Your task to perform on an android device: turn on the 24-hour format for clock Image 0: 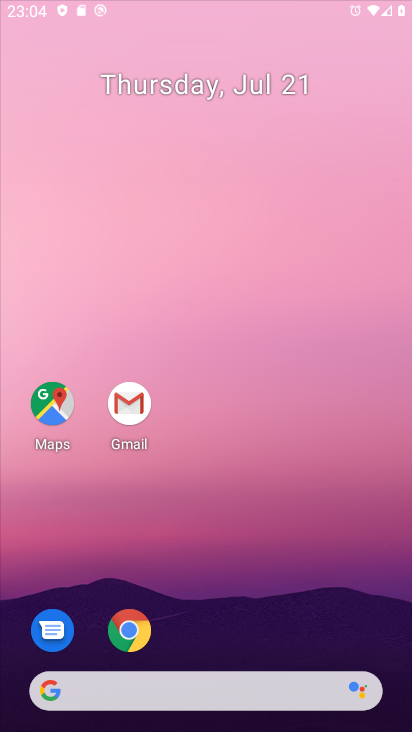
Step 0: drag from (227, 697) to (212, 266)
Your task to perform on an android device: turn on the 24-hour format for clock Image 1: 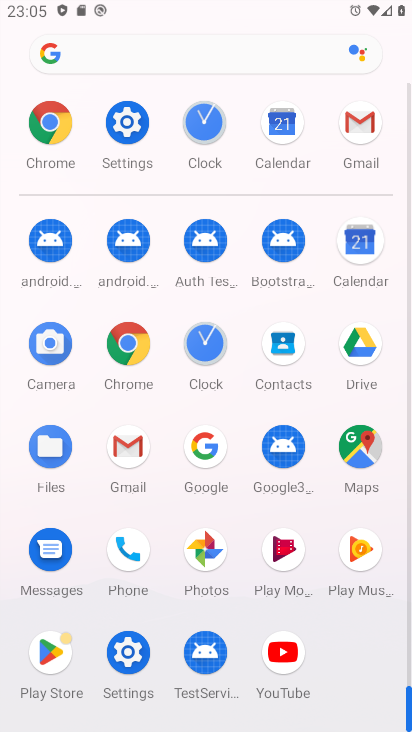
Step 1: click (211, 340)
Your task to perform on an android device: turn on the 24-hour format for clock Image 2: 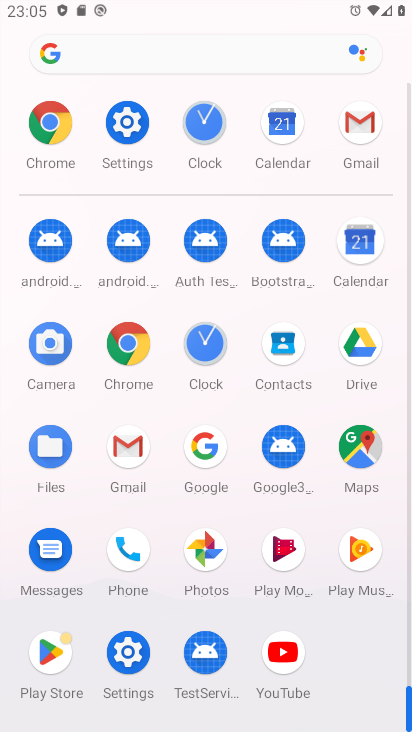
Step 2: click (210, 339)
Your task to perform on an android device: turn on the 24-hour format for clock Image 3: 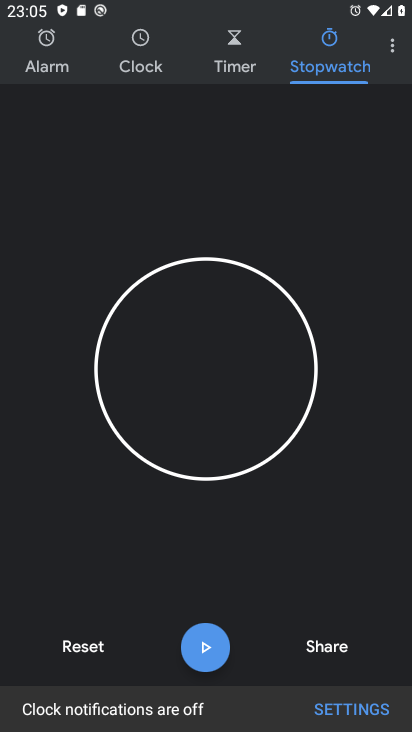
Step 3: click (379, 46)
Your task to perform on an android device: turn on the 24-hour format for clock Image 4: 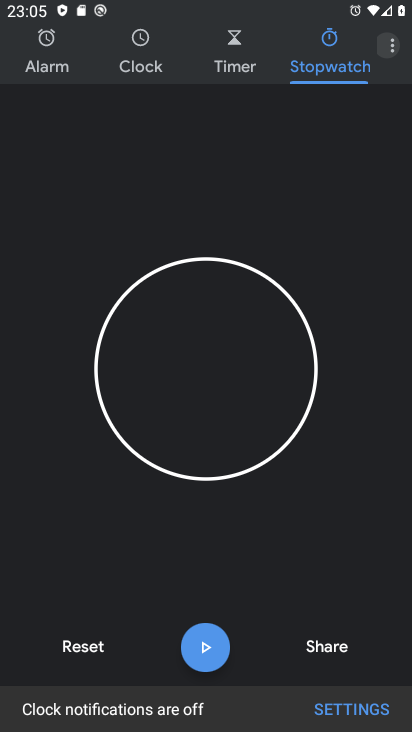
Step 4: click (381, 46)
Your task to perform on an android device: turn on the 24-hour format for clock Image 5: 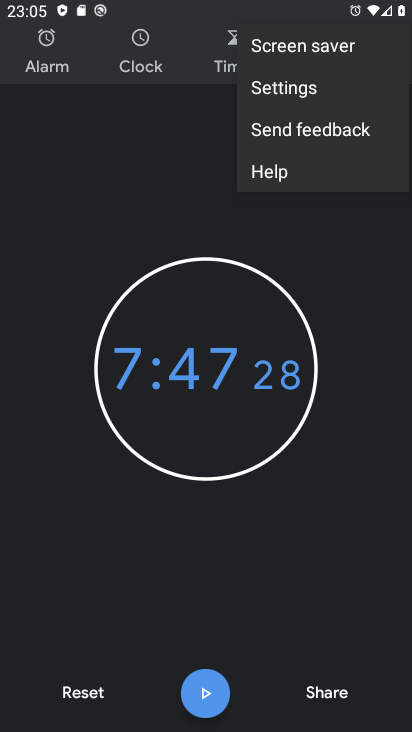
Step 5: click (300, 92)
Your task to perform on an android device: turn on the 24-hour format for clock Image 6: 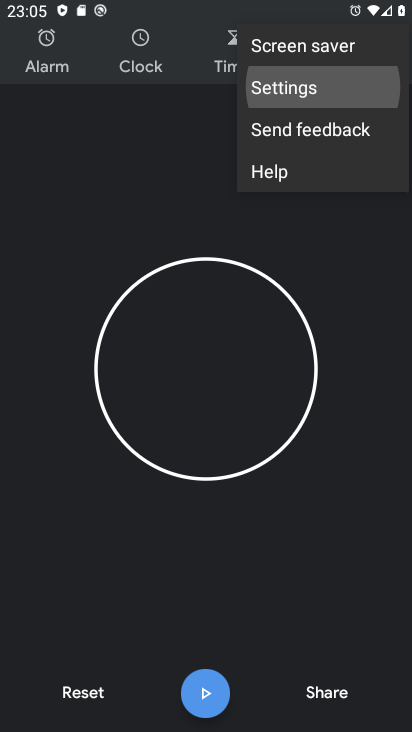
Step 6: click (294, 90)
Your task to perform on an android device: turn on the 24-hour format for clock Image 7: 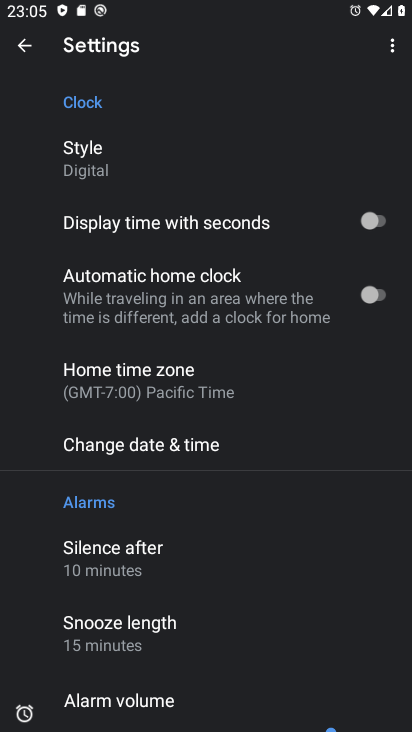
Step 7: drag from (202, 590) to (181, 268)
Your task to perform on an android device: turn on the 24-hour format for clock Image 8: 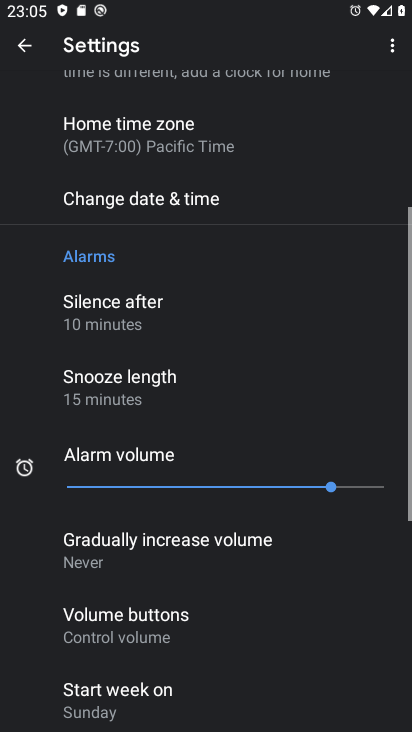
Step 8: drag from (190, 584) to (167, 259)
Your task to perform on an android device: turn on the 24-hour format for clock Image 9: 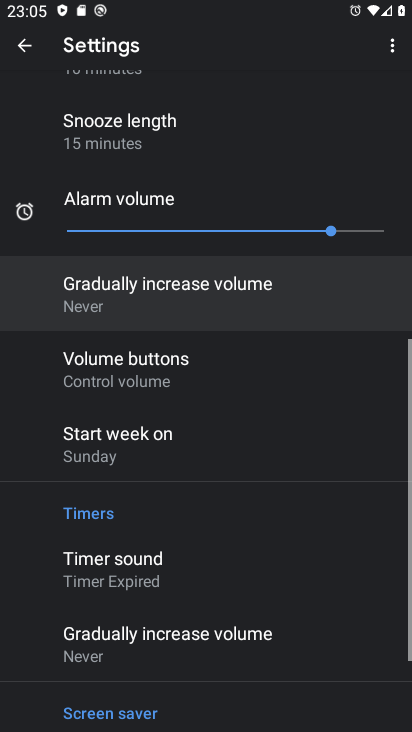
Step 9: drag from (193, 402) to (193, 139)
Your task to perform on an android device: turn on the 24-hour format for clock Image 10: 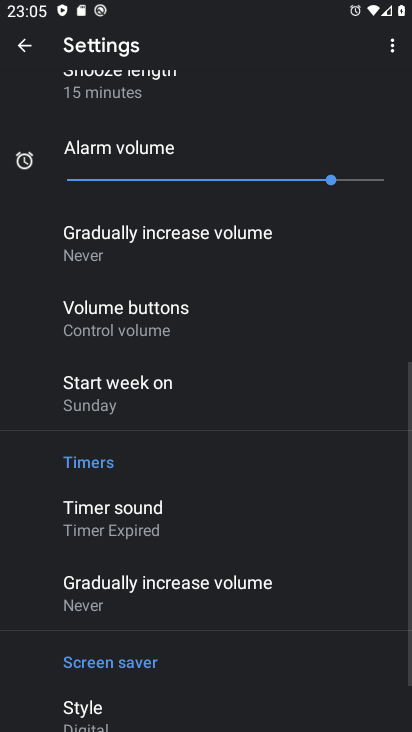
Step 10: drag from (238, 624) to (245, 300)
Your task to perform on an android device: turn on the 24-hour format for clock Image 11: 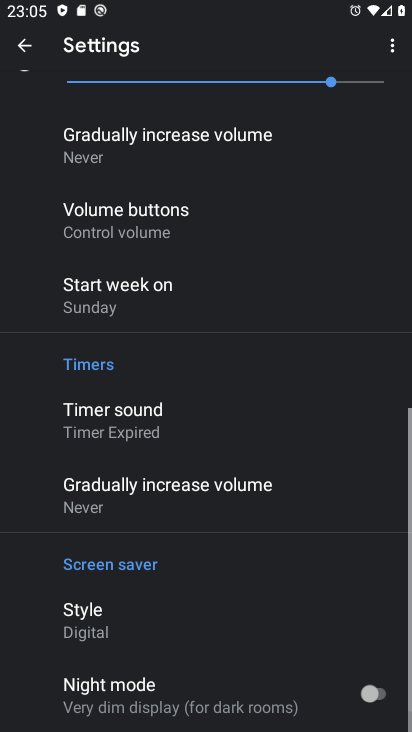
Step 11: drag from (224, 504) to (225, 210)
Your task to perform on an android device: turn on the 24-hour format for clock Image 12: 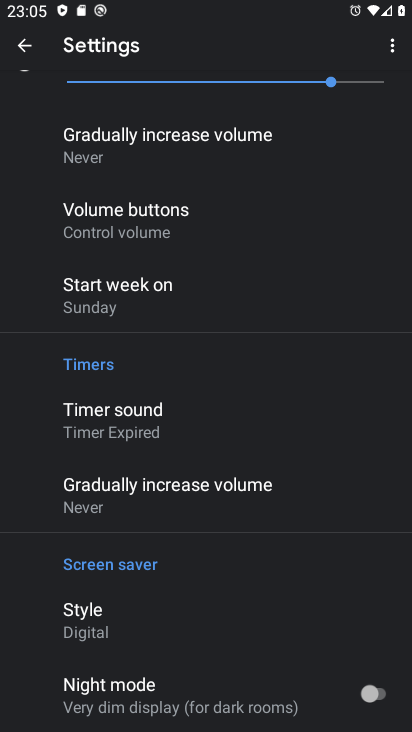
Step 12: drag from (197, 222) to (274, 634)
Your task to perform on an android device: turn on the 24-hour format for clock Image 13: 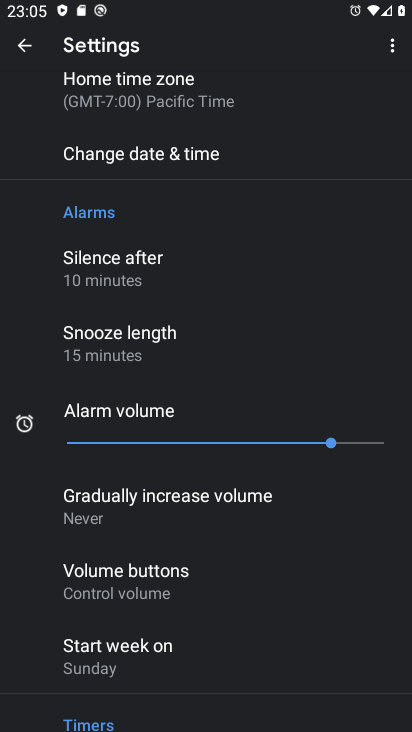
Step 13: click (145, 161)
Your task to perform on an android device: turn on the 24-hour format for clock Image 14: 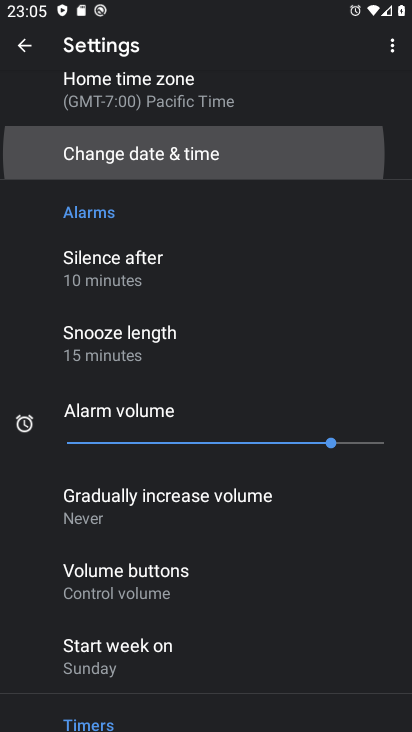
Step 14: click (146, 151)
Your task to perform on an android device: turn on the 24-hour format for clock Image 15: 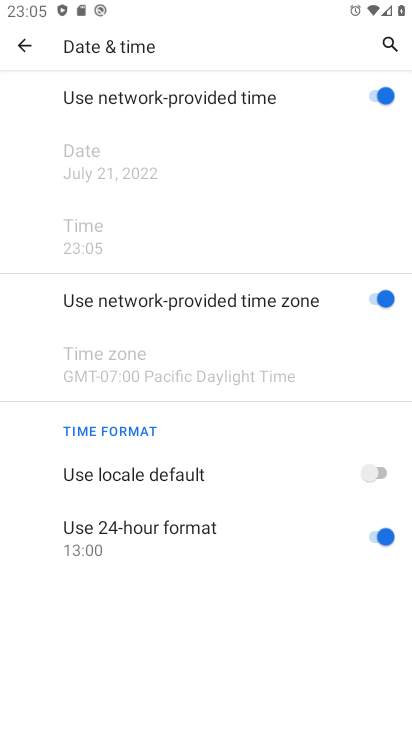
Step 15: task complete